Your task to perform on an android device: check google app version Image 0: 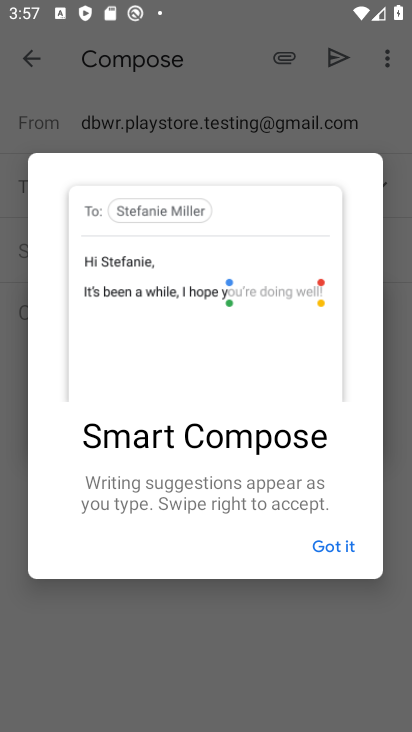
Step 0: press home button
Your task to perform on an android device: check google app version Image 1: 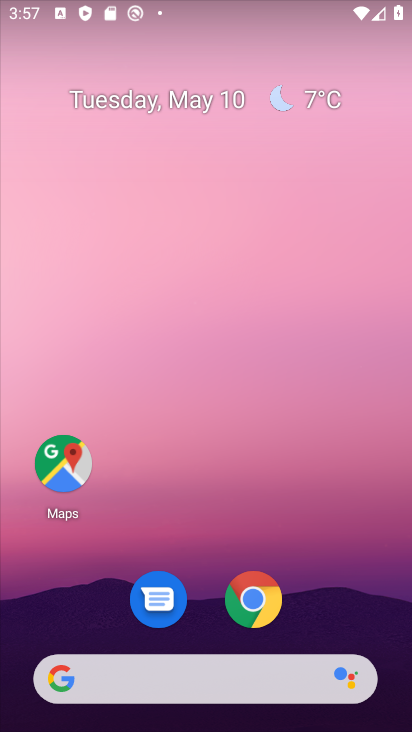
Step 1: drag from (232, 541) to (232, 134)
Your task to perform on an android device: check google app version Image 2: 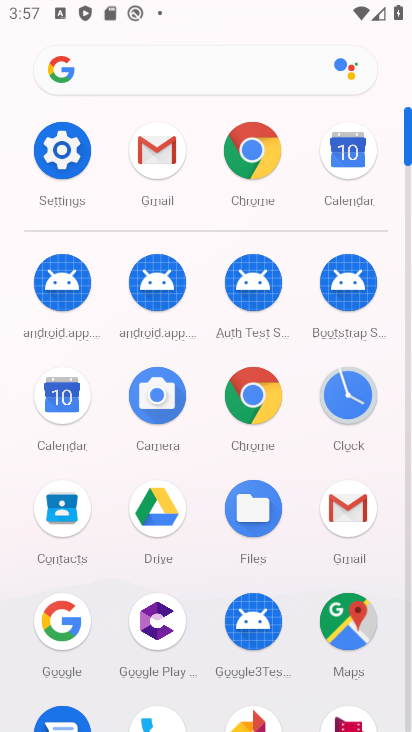
Step 2: click (67, 624)
Your task to perform on an android device: check google app version Image 3: 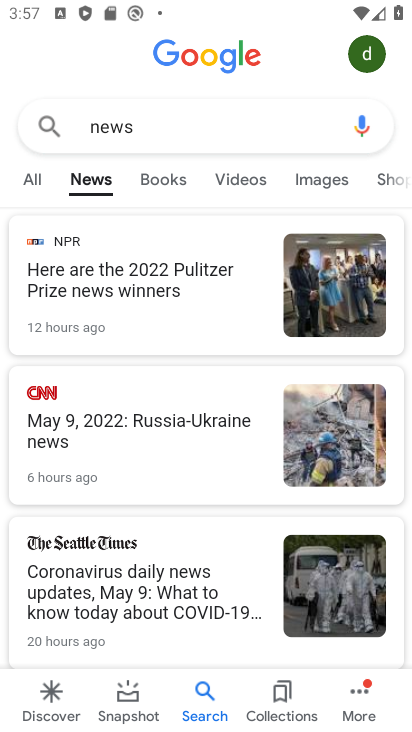
Step 3: click (362, 696)
Your task to perform on an android device: check google app version Image 4: 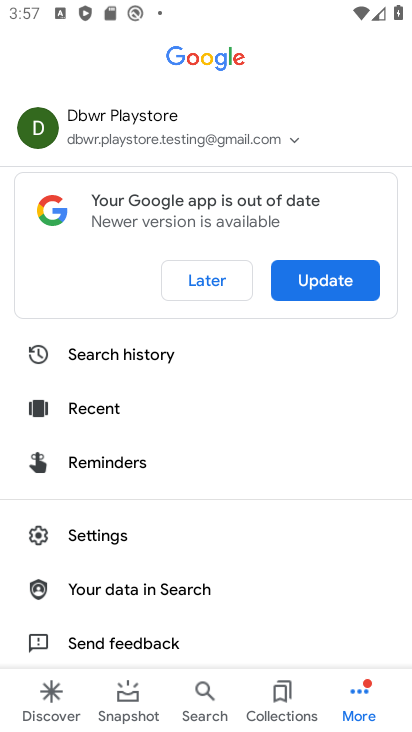
Step 4: drag from (157, 533) to (176, 419)
Your task to perform on an android device: check google app version Image 5: 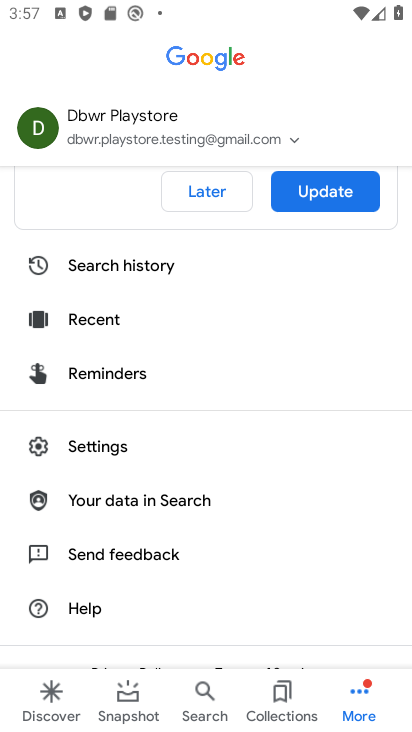
Step 5: click (129, 456)
Your task to perform on an android device: check google app version Image 6: 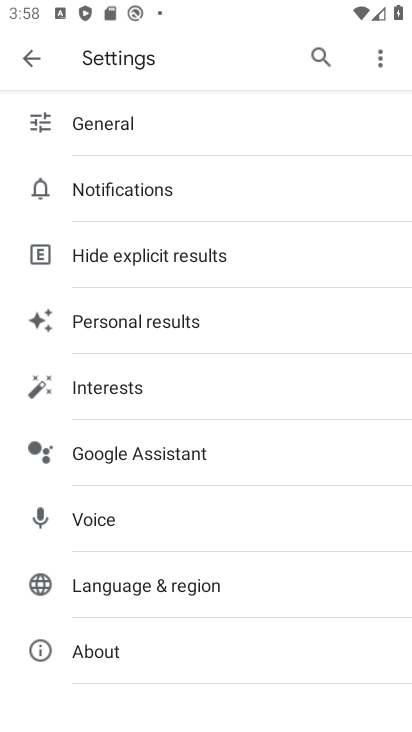
Step 6: click (183, 657)
Your task to perform on an android device: check google app version Image 7: 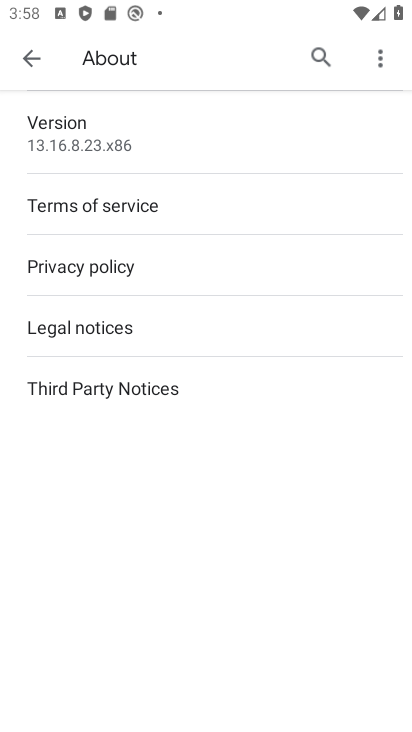
Step 7: task complete